Your task to perform on an android device: move an email to a new category in the gmail app Image 0: 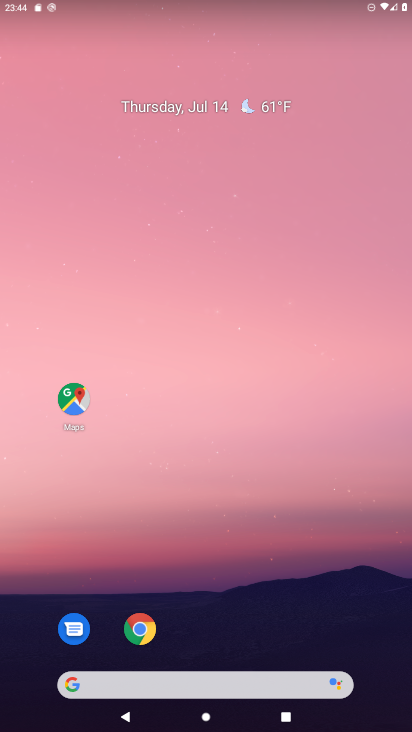
Step 0: drag from (197, 659) to (318, 37)
Your task to perform on an android device: move an email to a new category in the gmail app Image 1: 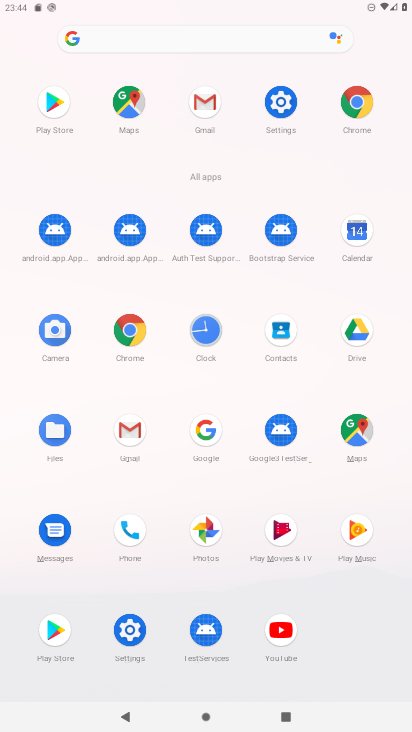
Step 1: click (212, 113)
Your task to perform on an android device: move an email to a new category in the gmail app Image 2: 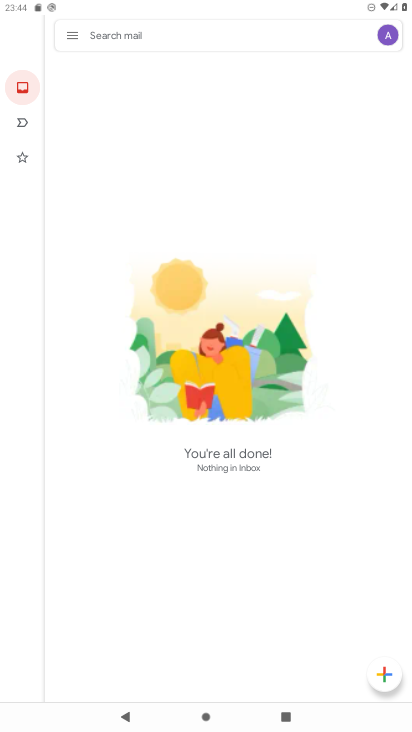
Step 2: task complete